Your task to perform on an android device: Turn on the flashlight Image 0: 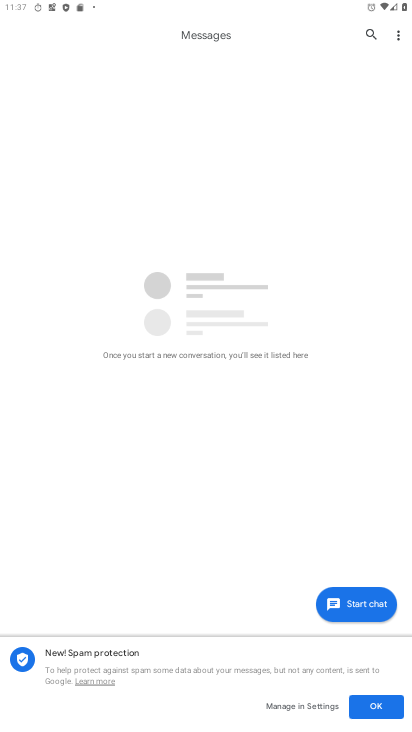
Step 0: press home button
Your task to perform on an android device: Turn on the flashlight Image 1: 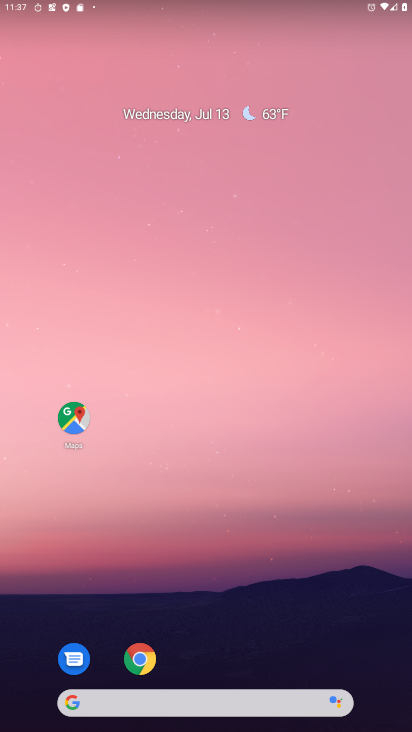
Step 1: drag from (311, 619) to (233, 67)
Your task to perform on an android device: Turn on the flashlight Image 2: 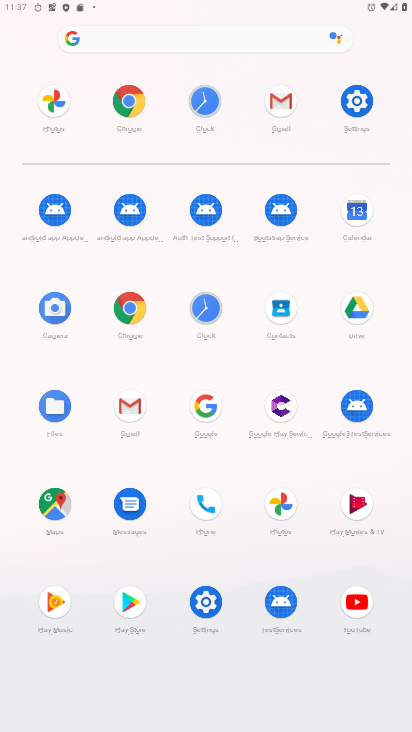
Step 2: click (350, 105)
Your task to perform on an android device: Turn on the flashlight Image 3: 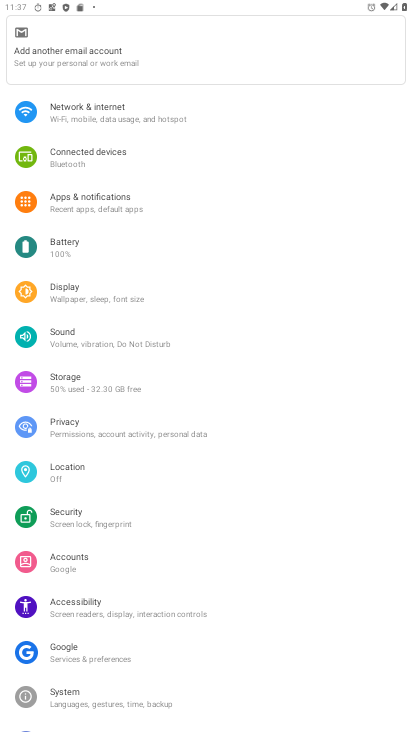
Step 3: click (75, 285)
Your task to perform on an android device: Turn on the flashlight Image 4: 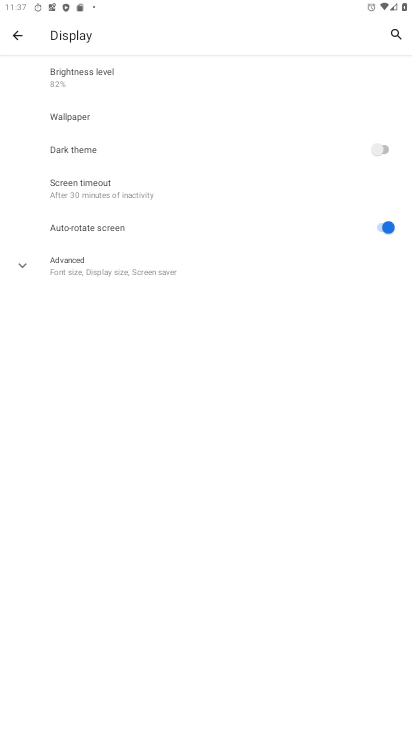
Step 4: task complete